Your task to perform on an android device: turn off picture-in-picture Image 0: 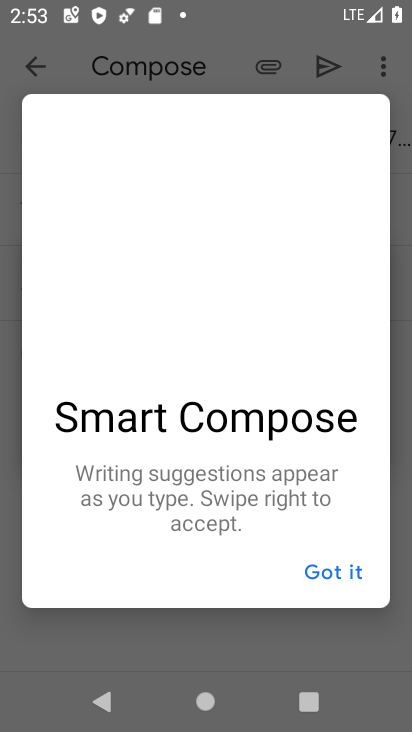
Step 0: press home button
Your task to perform on an android device: turn off picture-in-picture Image 1: 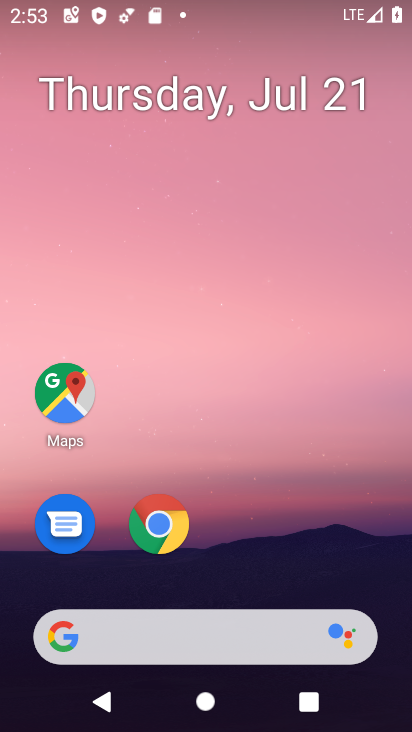
Step 1: click (164, 520)
Your task to perform on an android device: turn off picture-in-picture Image 2: 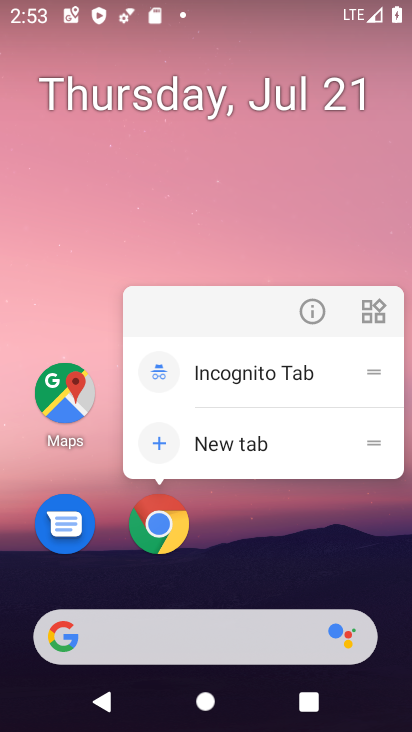
Step 2: click (313, 316)
Your task to perform on an android device: turn off picture-in-picture Image 3: 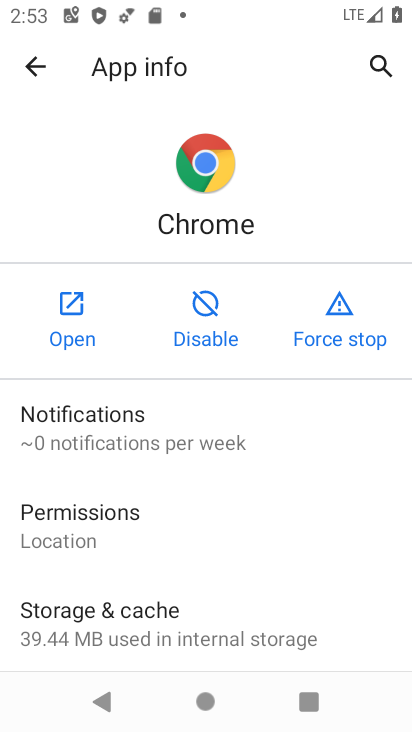
Step 3: drag from (259, 555) to (263, 24)
Your task to perform on an android device: turn off picture-in-picture Image 4: 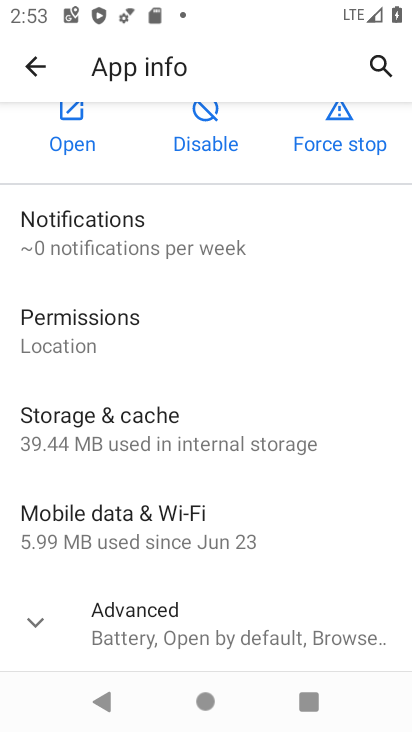
Step 4: click (35, 620)
Your task to perform on an android device: turn off picture-in-picture Image 5: 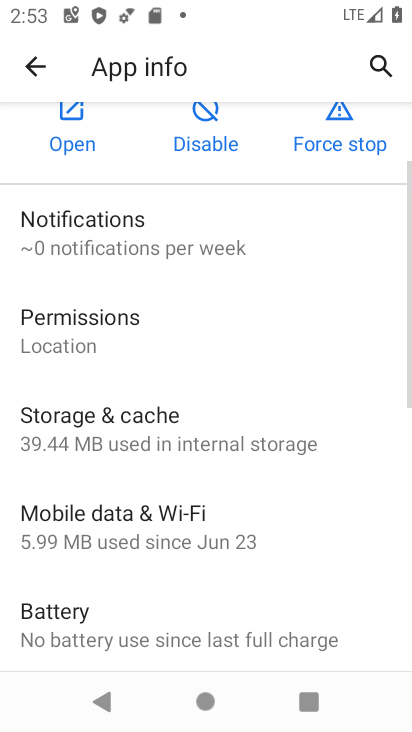
Step 5: drag from (269, 575) to (294, 244)
Your task to perform on an android device: turn off picture-in-picture Image 6: 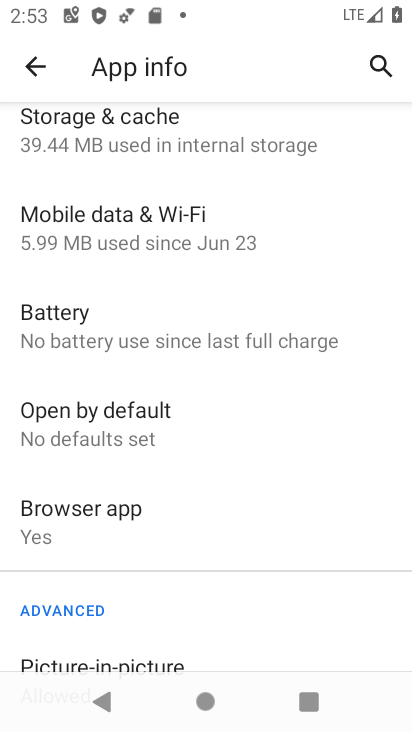
Step 6: drag from (245, 478) to (261, 200)
Your task to perform on an android device: turn off picture-in-picture Image 7: 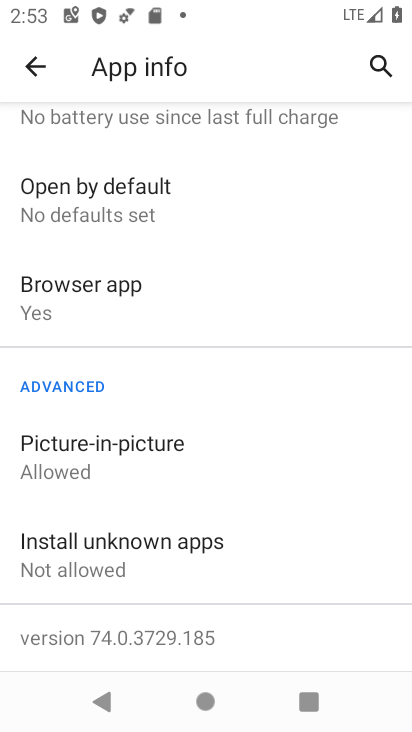
Step 7: click (153, 447)
Your task to perform on an android device: turn off picture-in-picture Image 8: 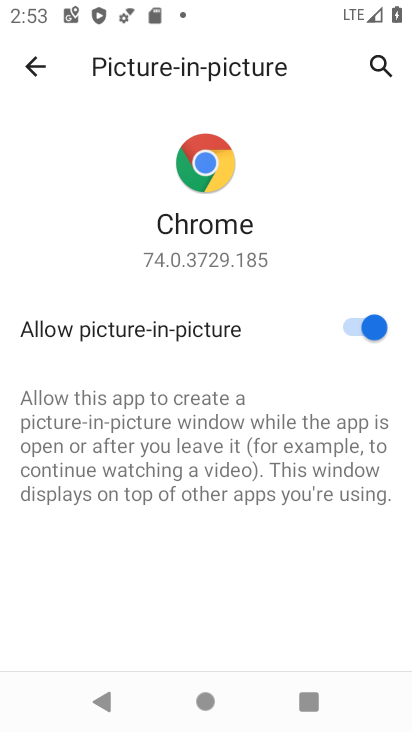
Step 8: click (365, 327)
Your task to perform on an android device: turn off picture-in-picture Image 9: 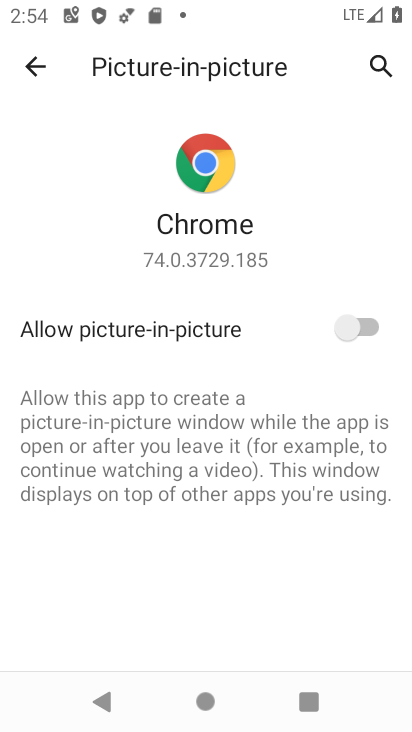
Step 9: task complete